Your task to perform on an android device: change the clock display to show seconds Image 0: 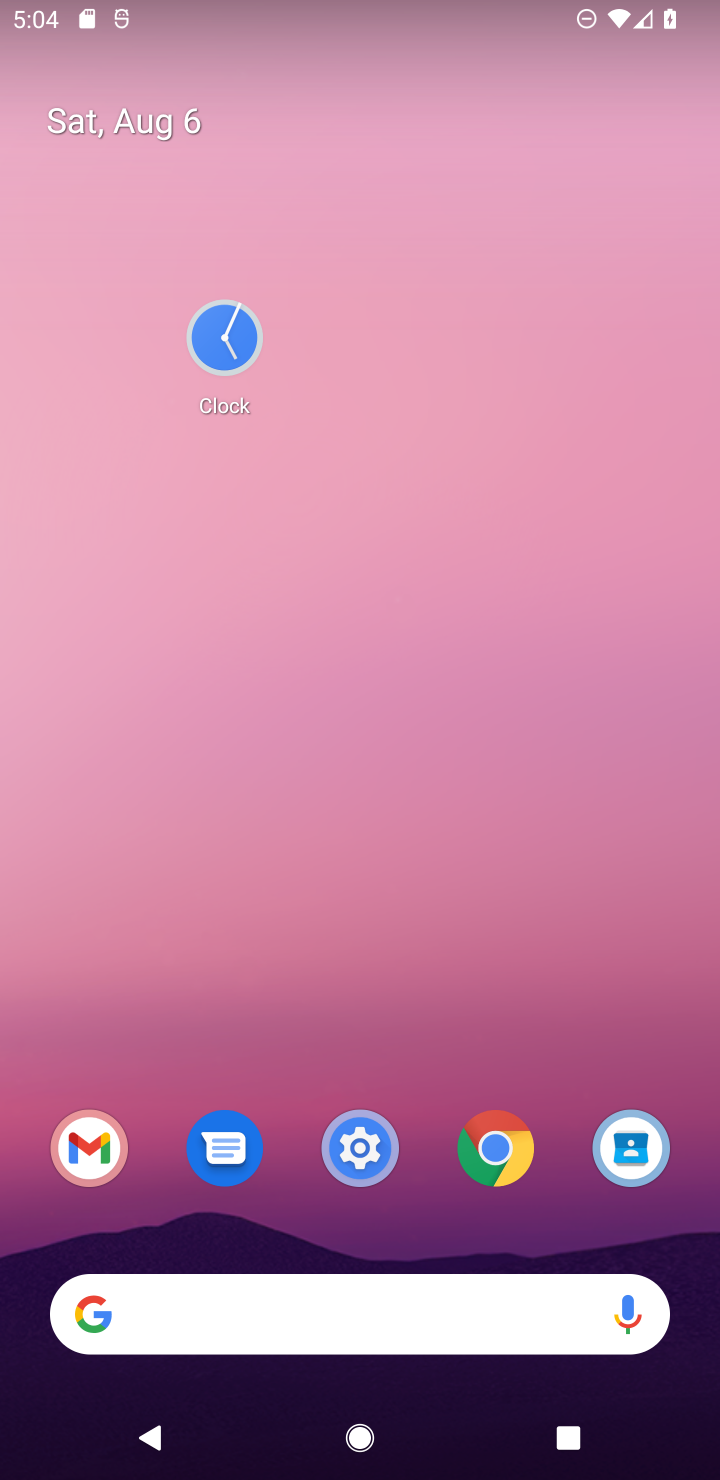
Step 0: drag from (261, 1212) to (705, 495)
Your task to perform on an android device: change the clock display to show seconds Image 1: 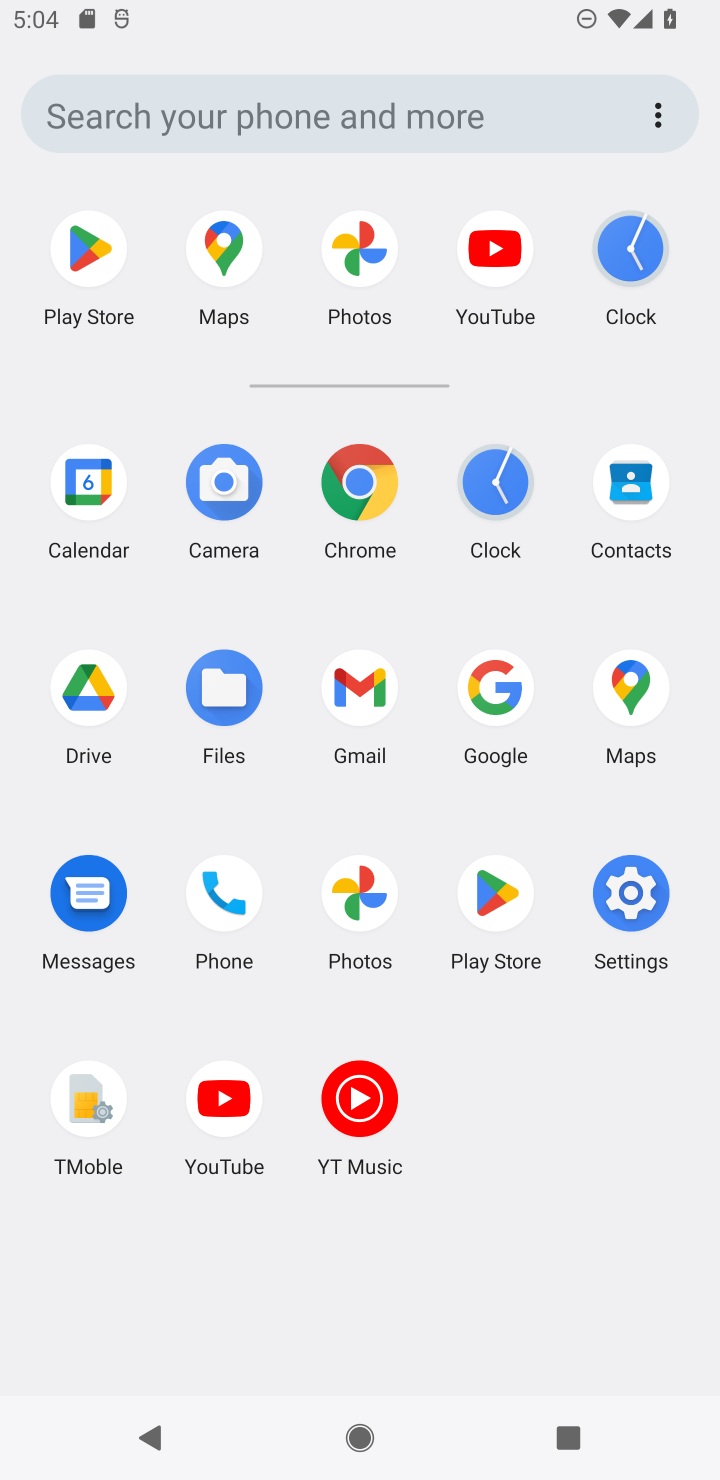
Step 1: click (637, 880)
Your task to perform on an android device: change the clock display to show seconds Image 2: 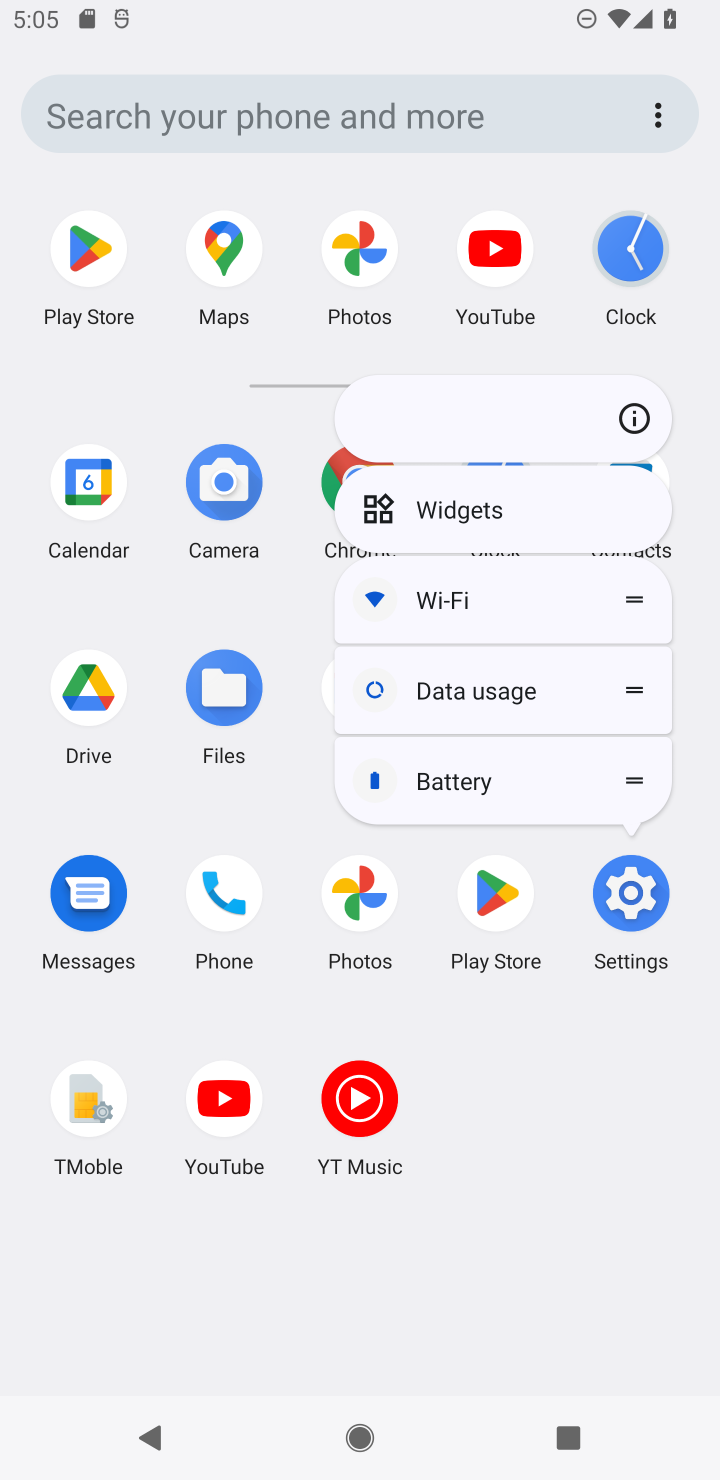
Step 2: click (518, 1259)
Your task to perform on an android device: change the clock display to show seconds Image 3: 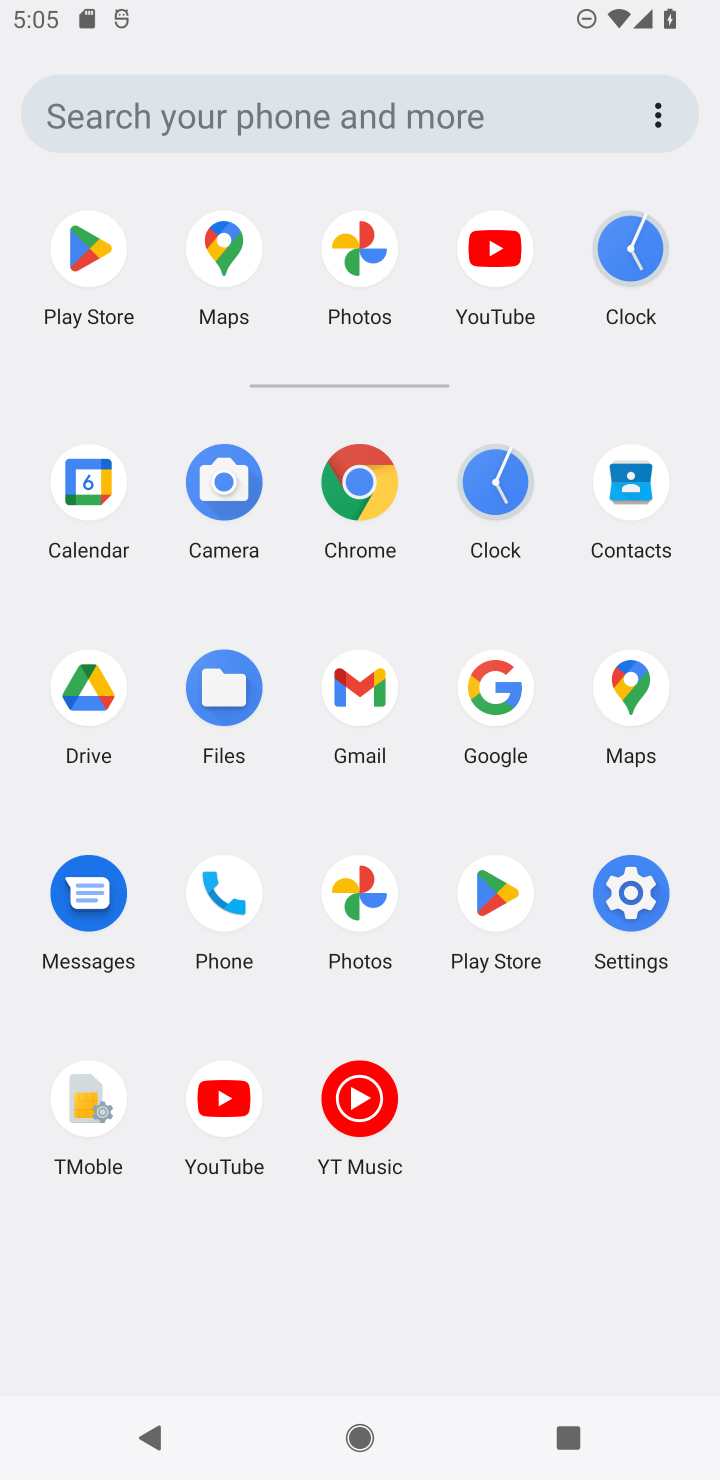
Step 3: click (637, 231)
Your task to perform on an android device: change the clock display to show seconds Image 4: 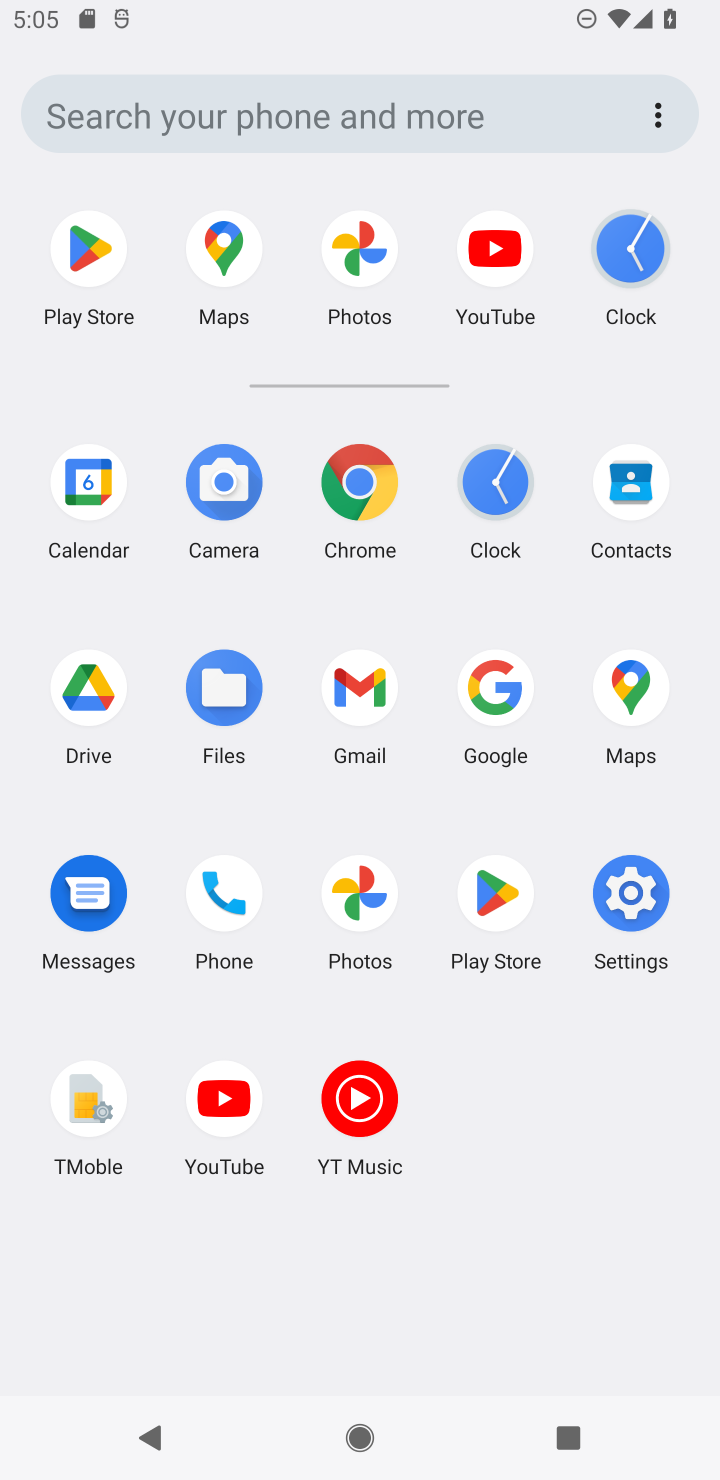
Step 4: click (637, 231)
Your task to perform on an android device: change the clock display to show seconds Image 5: 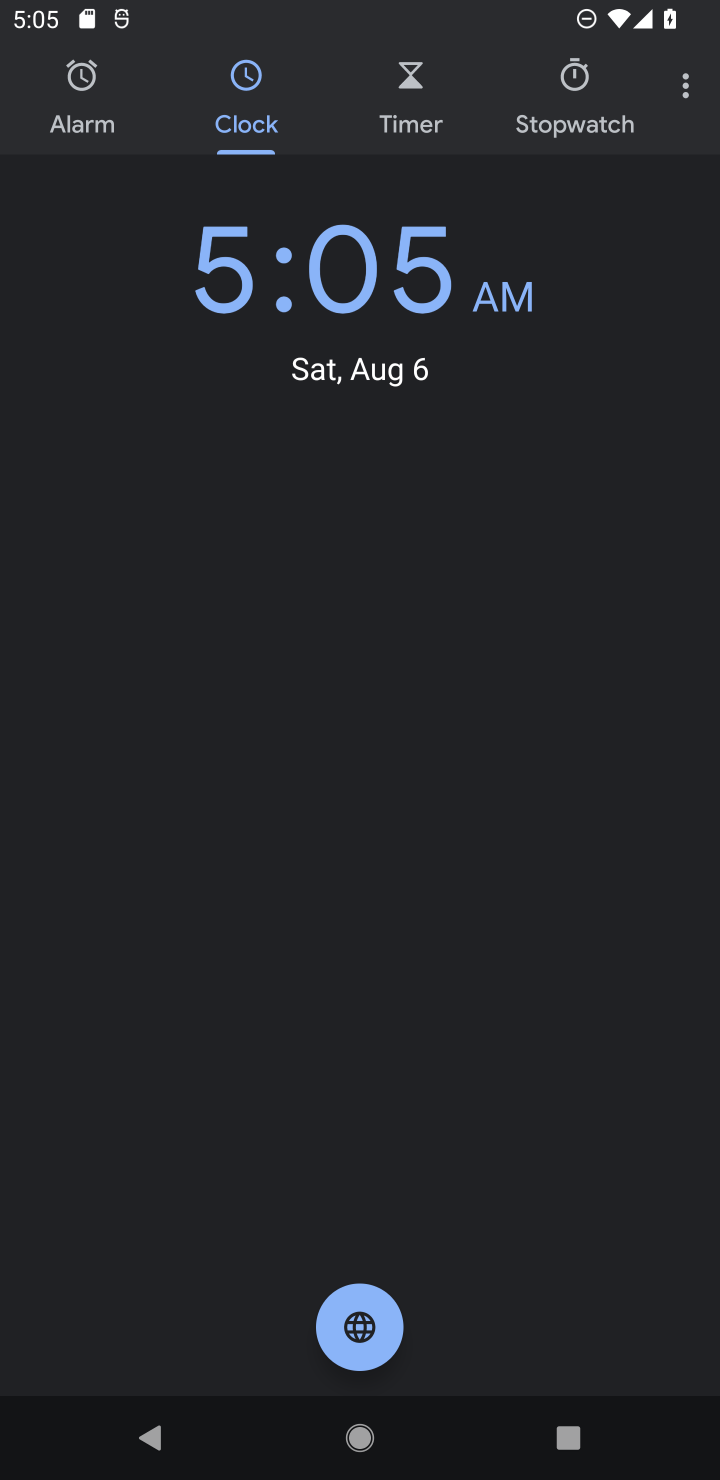
Step 5: drag from (413, 899) to (454, 398)
Your task to perform on an android device: change the clock display to show seconds Image 6: 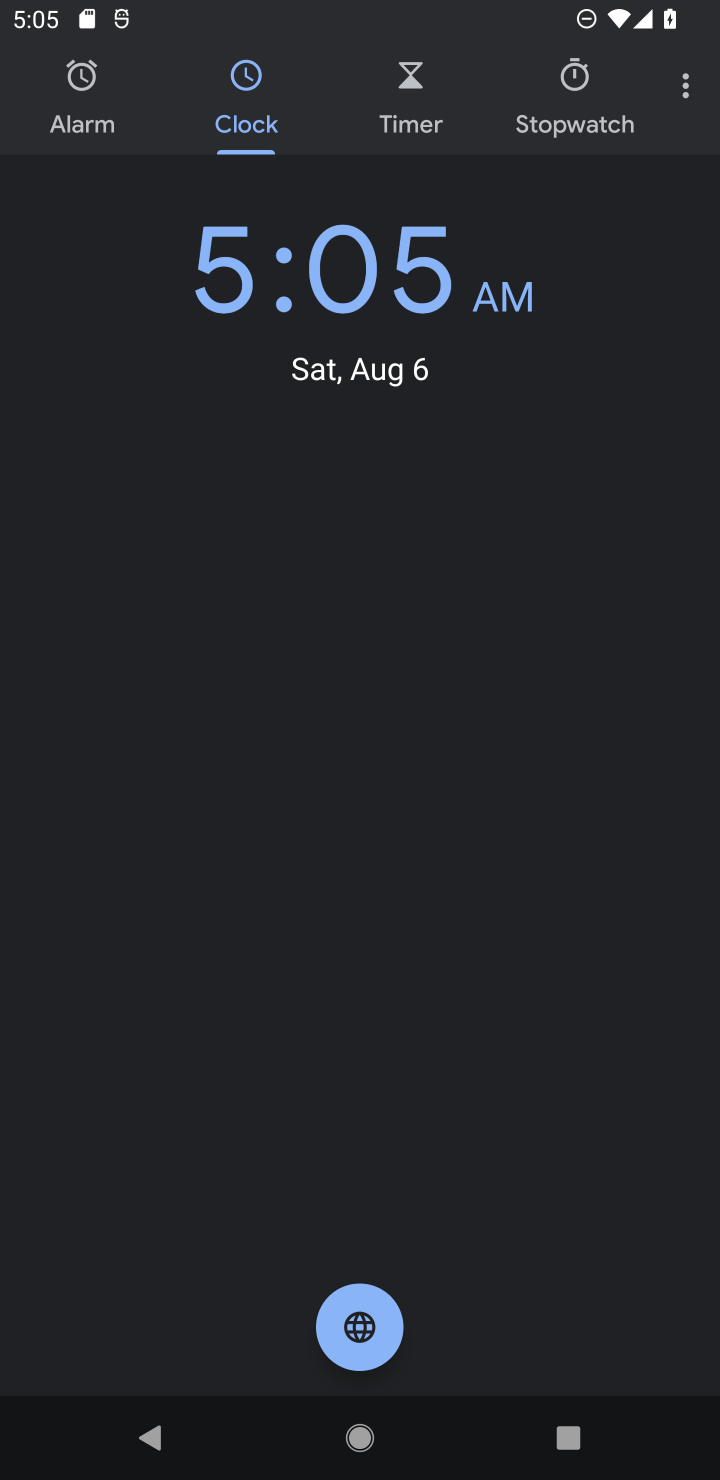
Step 6: drag from (690, 87) to (548, 148)
Your task to perform on an android device: change the clock display to show seconds Image 7: 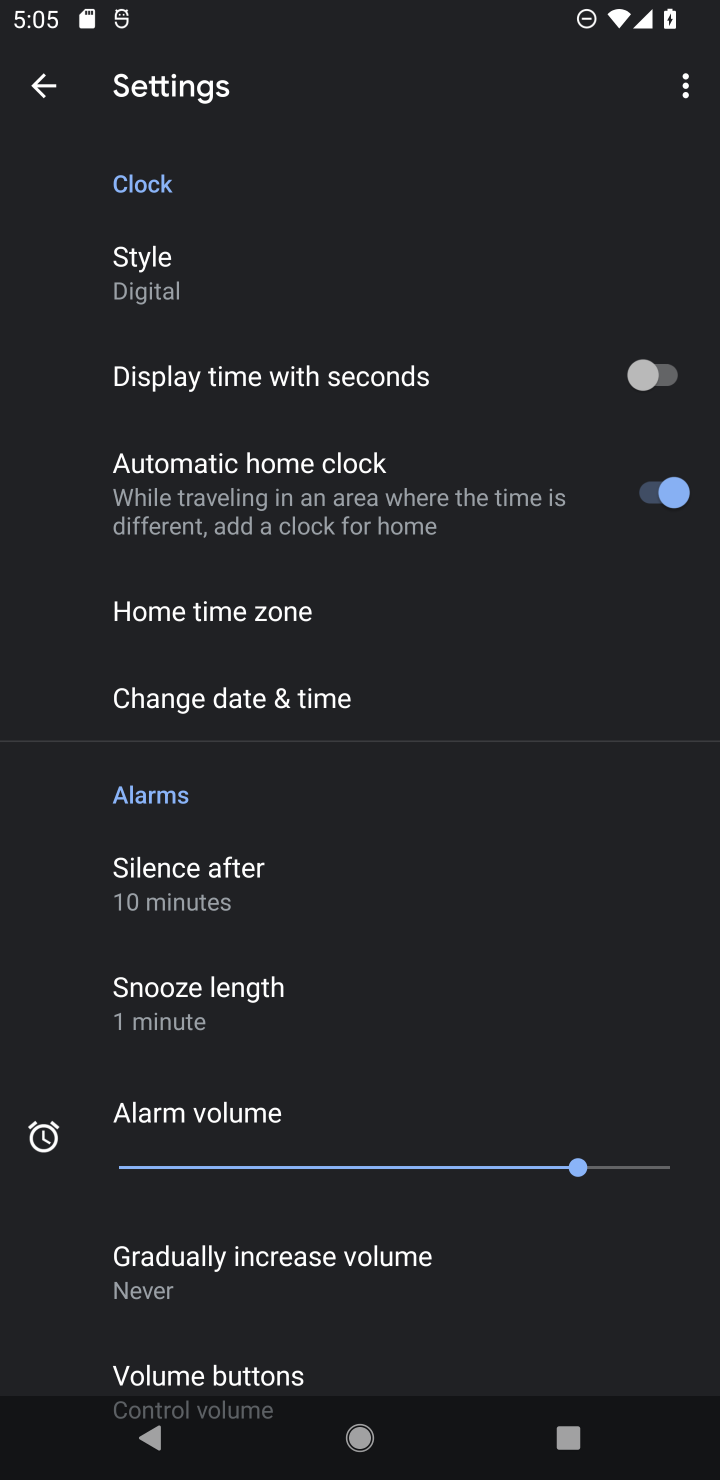
Step 7: click (659, 376)
Your task to perform on an android device: change the clock display to show seconds Image 8: 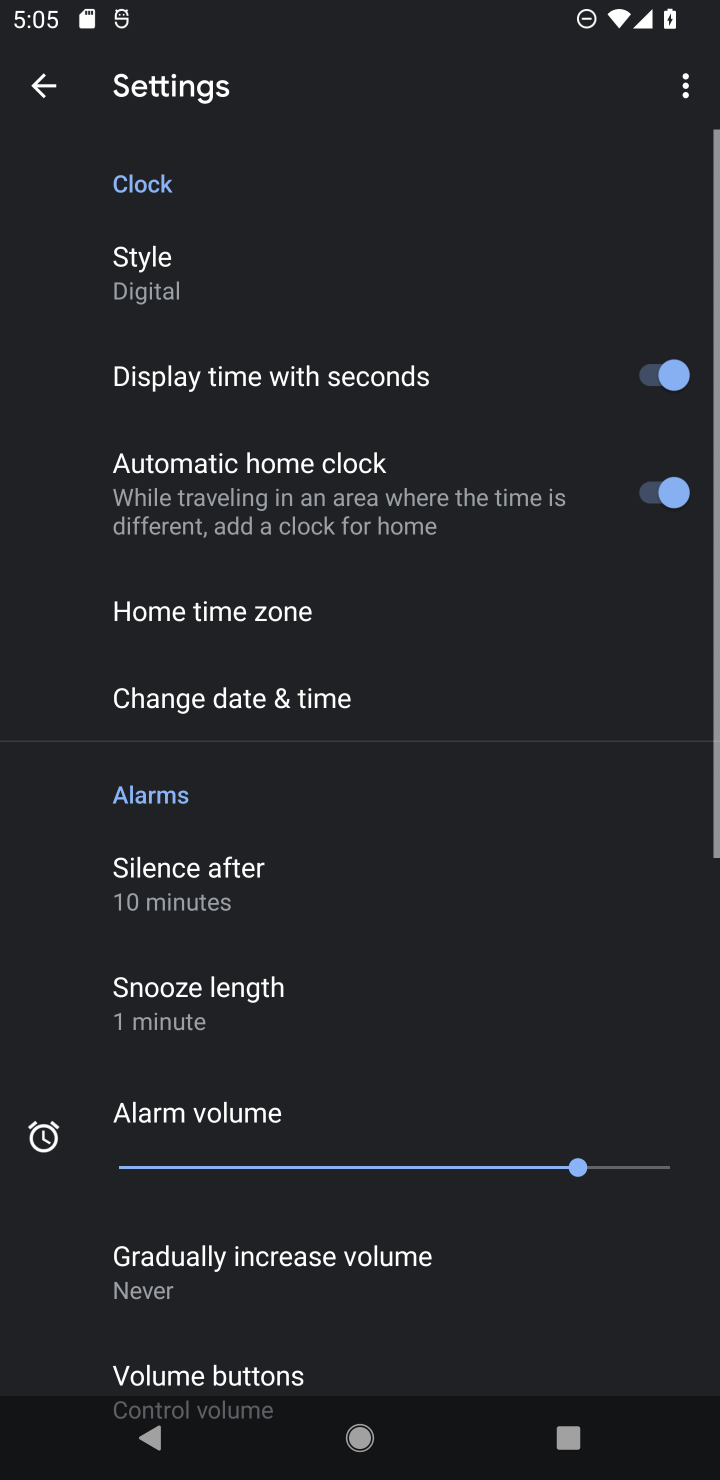
Step 8: task complete